Your task to perform on an android device: change notification settings in the gmail app Image 0: 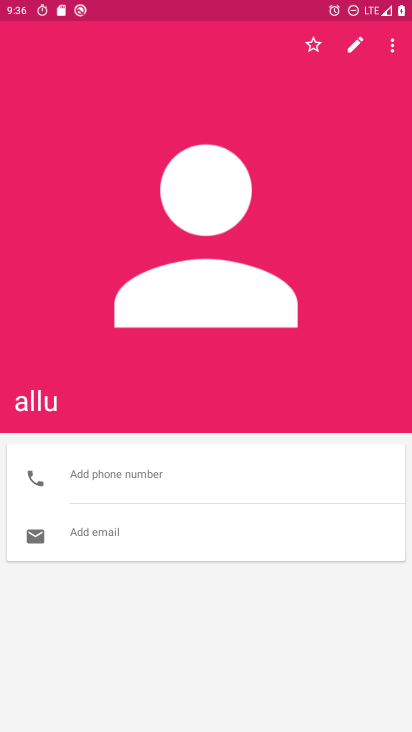
Step 0: press home button
Your task to perform on an android device: change notification settings in the gmail app Image 1: 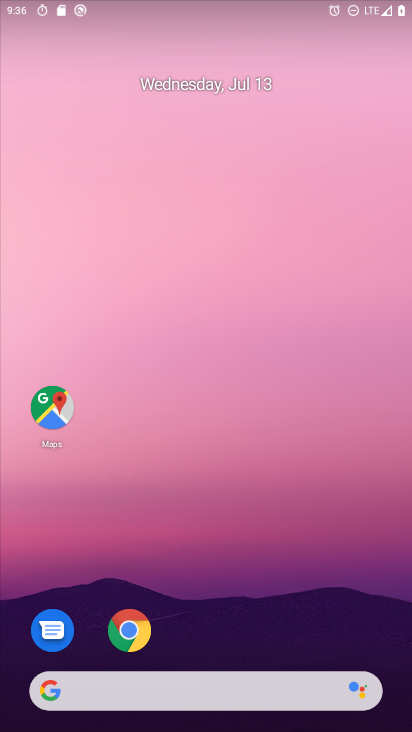
Step 1: drag from (386, 655) to (237, 0)
Your task to perform on an android device: change notification settings in the gmail app Image 2: 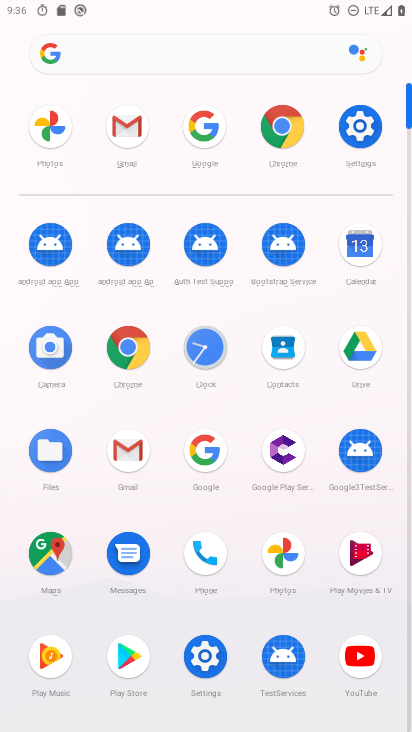
Step 2: click (141, 449)
Your task to perform on an android device: change notification settings in the gmail app Image 3: 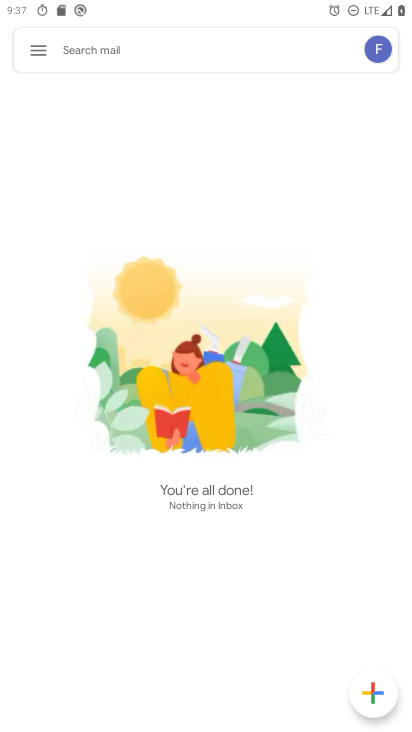
Step 3: click (37, 61)
Your task to perform on an android device: change notification settings in the gmail app Image 4: 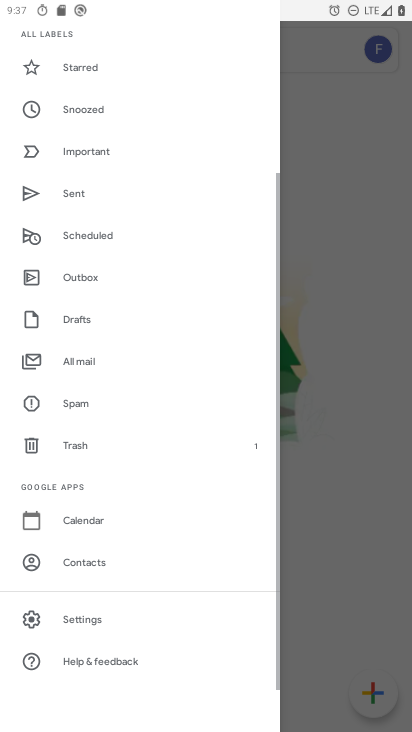
Step 4: click (106, 619)
Your task to perform on an android device: change notification settings in the gmail app Image 5: 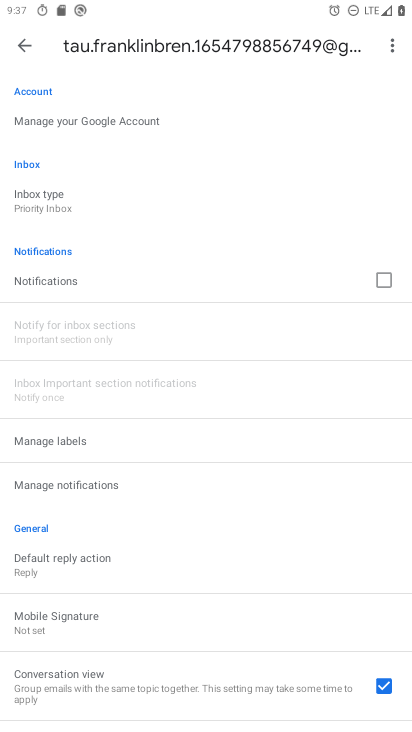
Step 5: click (57, 277)
Your task to perform on an android device: change notification settings in the gmail app Image 6: 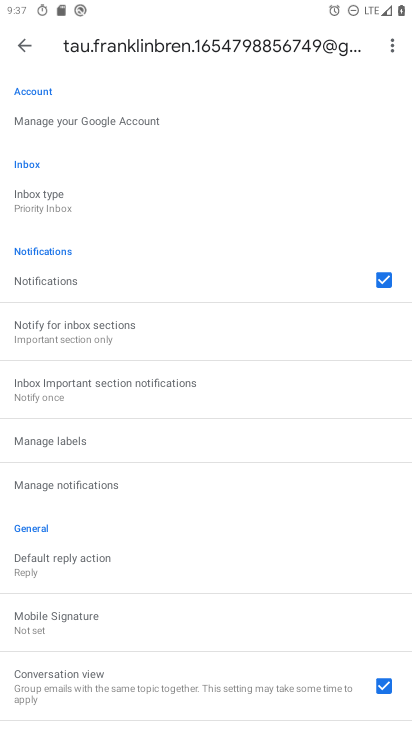
Step 6: task complete